Your task to perform on an android device: What is the news today? Image 0: 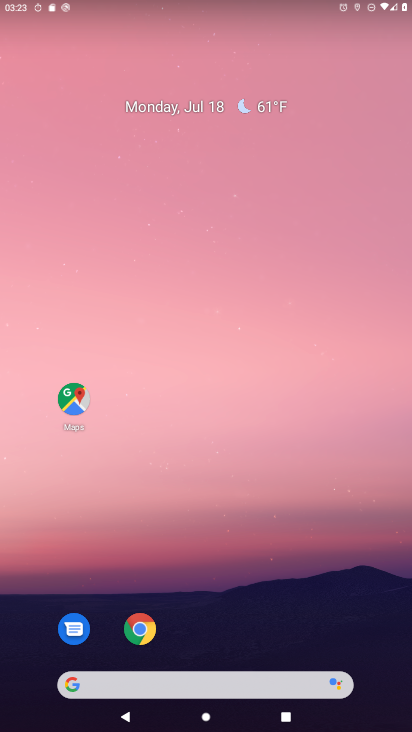
Step 0: drag from (186, 683) to (151, 142)
Your task to perform on an android device: What is the news today? Image 1: 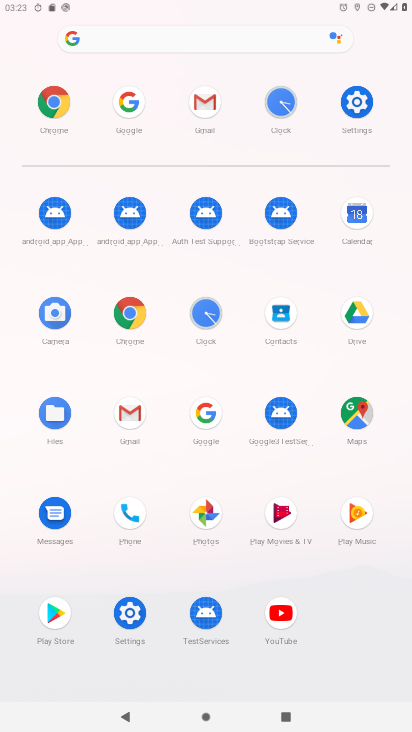
Step 1: click (127, 103)
Your task to perform on an android device: What is the news today? Image 2: 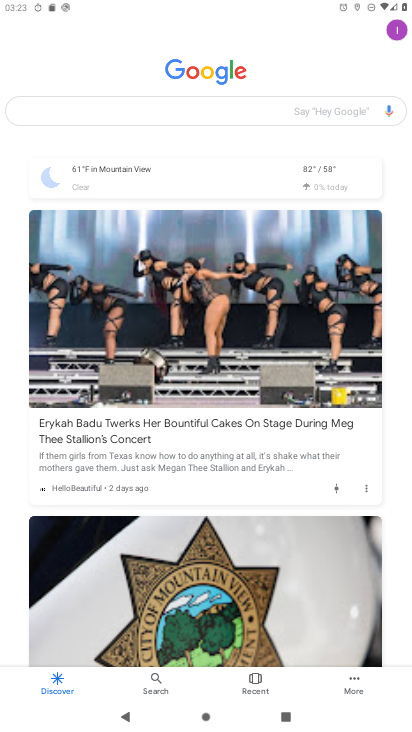
Step 2: click (141, 113)
Your task to perform on an android device: What is the news today? Image 3: 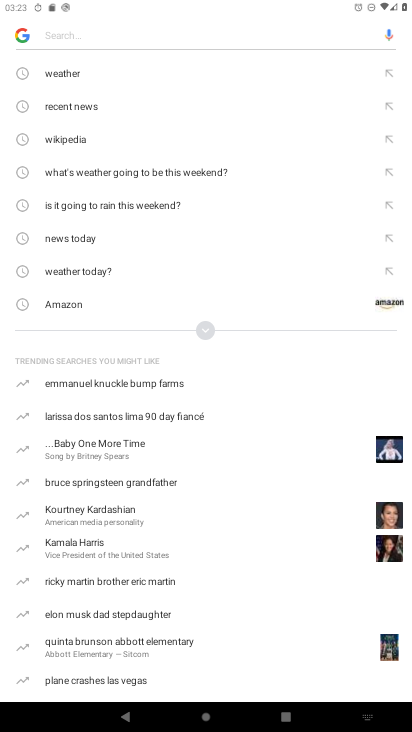
Step 3: click (87, 242)
Your task to perform on an android device: What is the news today? Image 4: 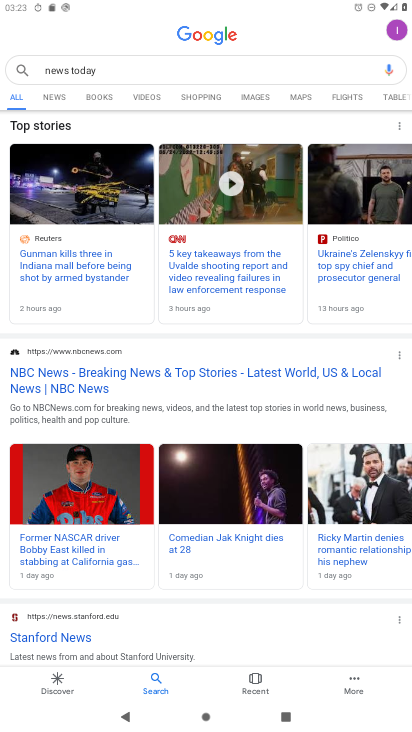
Step 4: click (74, 257)
Your task to perform on an android device: What is the news today? Image 5: 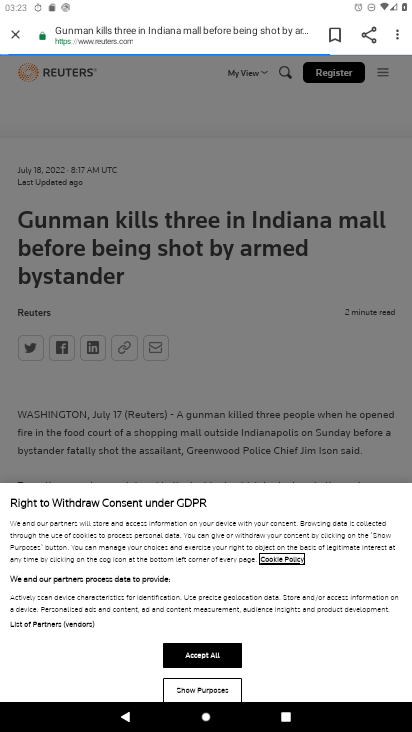
Step 5: click (220, 663)
Your task to perform on an android device: What is the news today? Image 6: 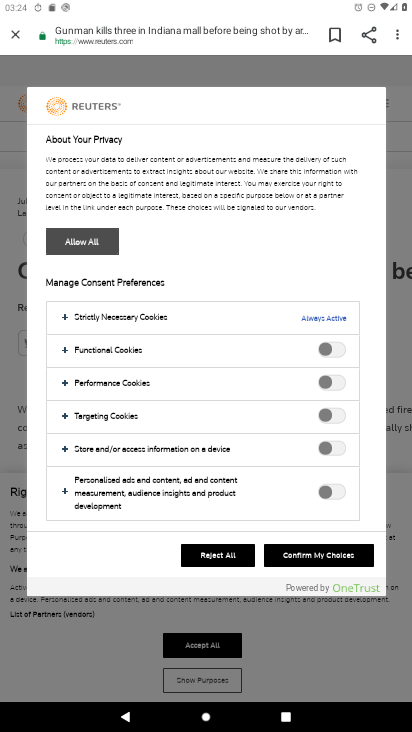
Step 6: click (346, 559)
Your task to perform on an android device: What is the news today? Image 7: 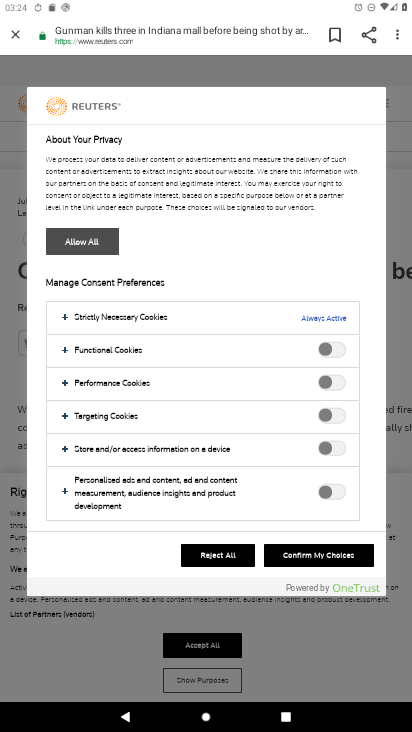
Step 7: task complete